Your task to perform on an android device: make emails show in primary in the gmail app Image 0: 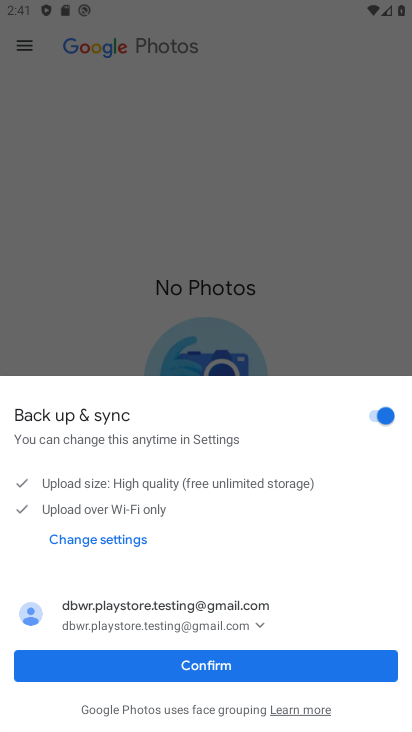
Step 0: press home button
Your task to perform on an android device: make emails show in primary in the gmail app Image 1: 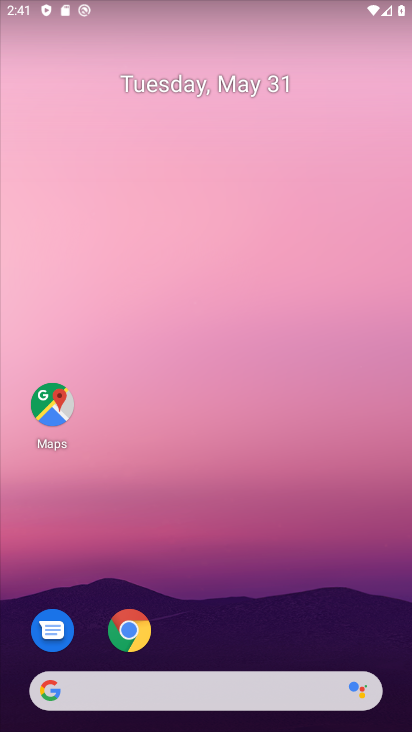
Step 1: drag from (194, 648) to (144, 102)
Your task to perform on an android device: make emails show in primary in the gmail app Image 2: 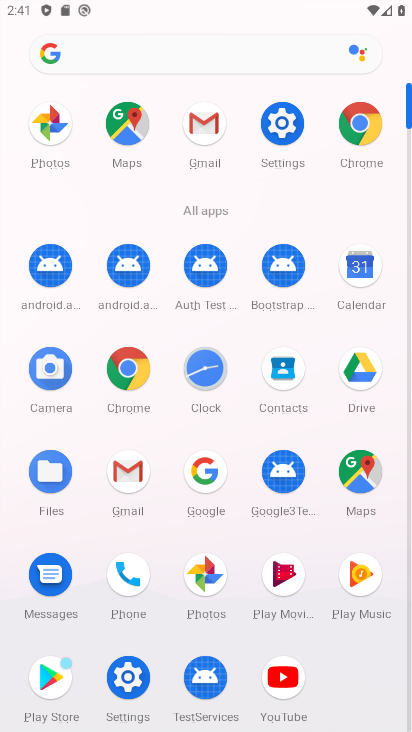
Step 2: click (115, 498)
Your task to perform on an android device: make emails show in primary in the gmail app Image 3: 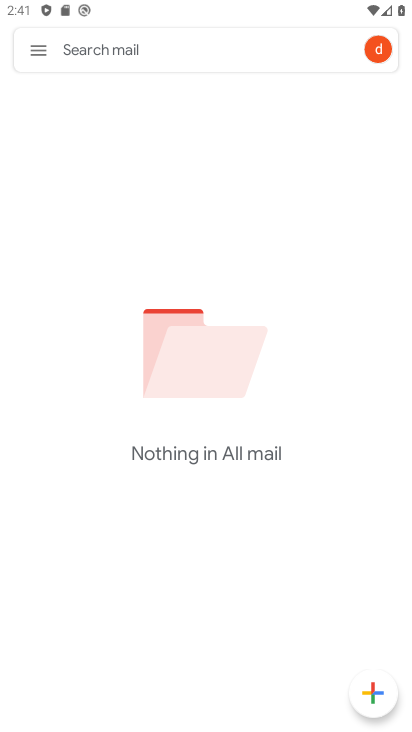
Step 3: click (43, 61)
Your task to perform on an android device: make emails show in primary in the gmail app Image 4: 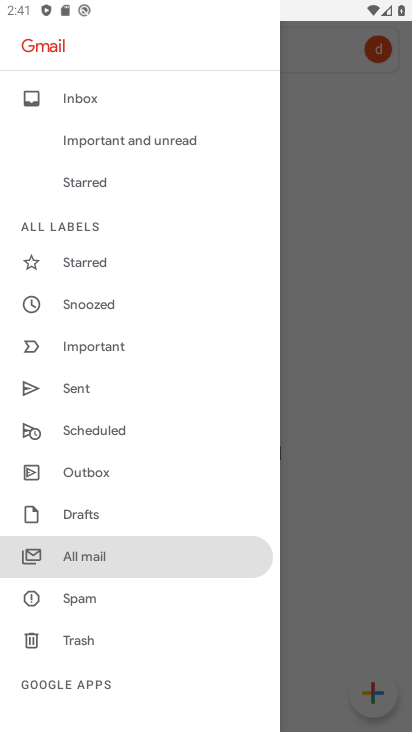
Step 4: task complete